Your task to perform on an android device: Do I have any events today? Image 0: 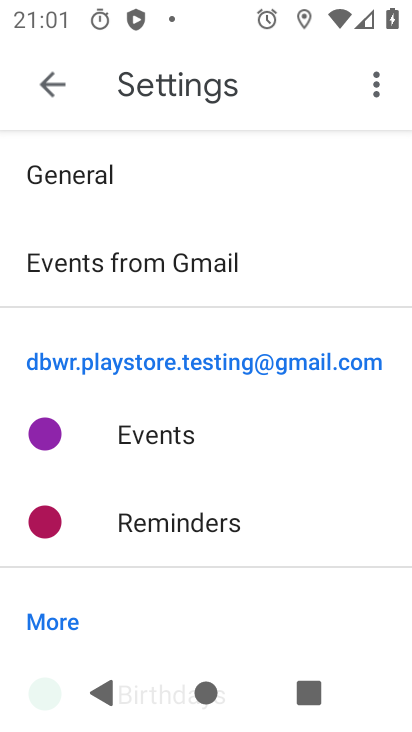
Step 0: press home button
Your task to perform on an android device: Do I have any events today? Image 1: 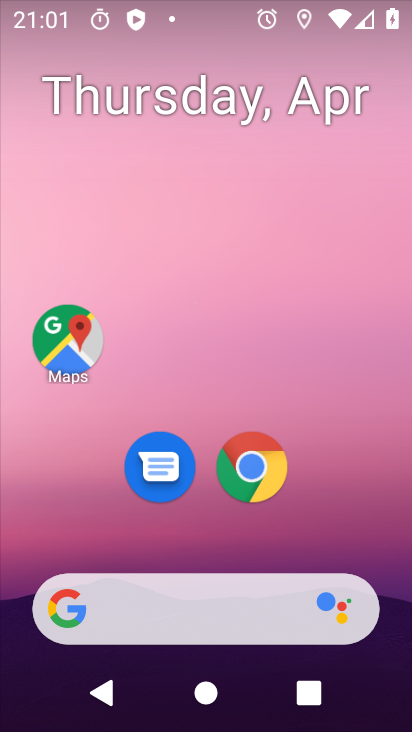
Step 1: drag from (192, 537) to (249, 17)
Your task to perform on an android device: Do I have any events today? Image 2: 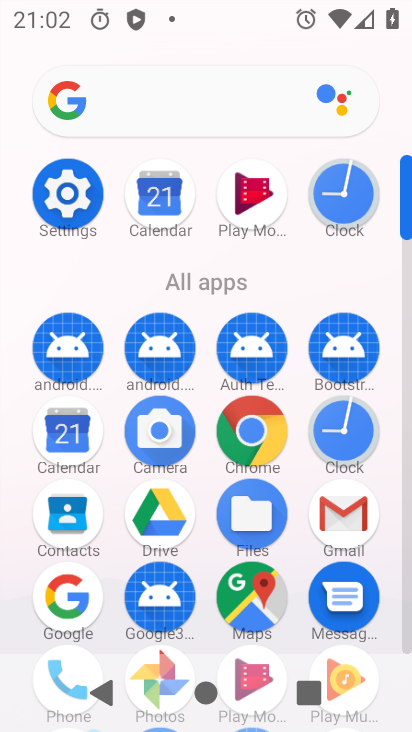
Step 2: click (64, 435)
Your task to perform on an android device: Do I have any events today? Image 3: 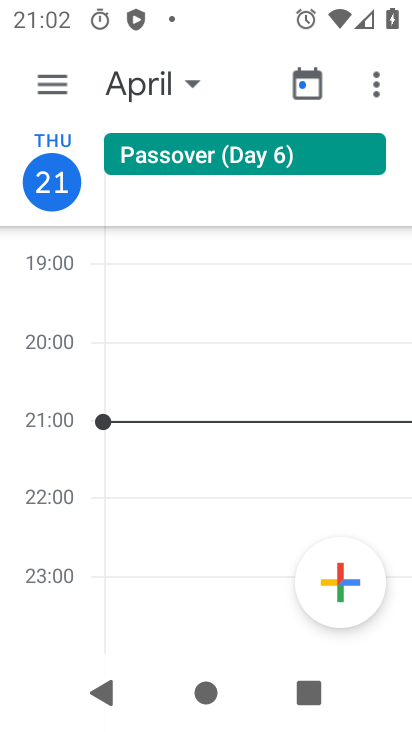
Step 3: click (53, 77)
Your task to perform on an android device: Do I have any events today? Image 4: 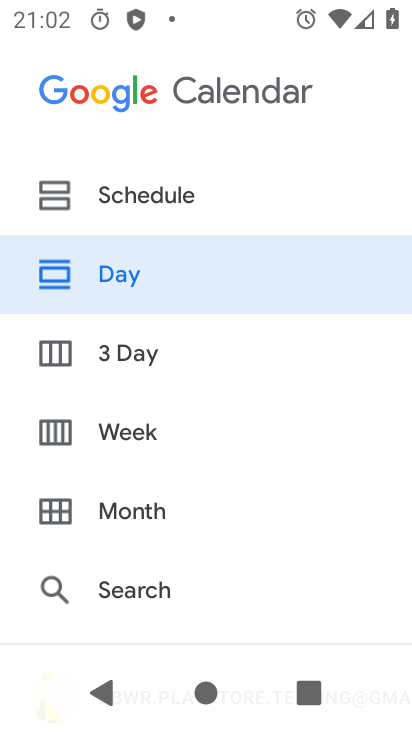
Step 4: click (105, 257)
Your task to perform on an android device: Do I have any events today? Image 5: 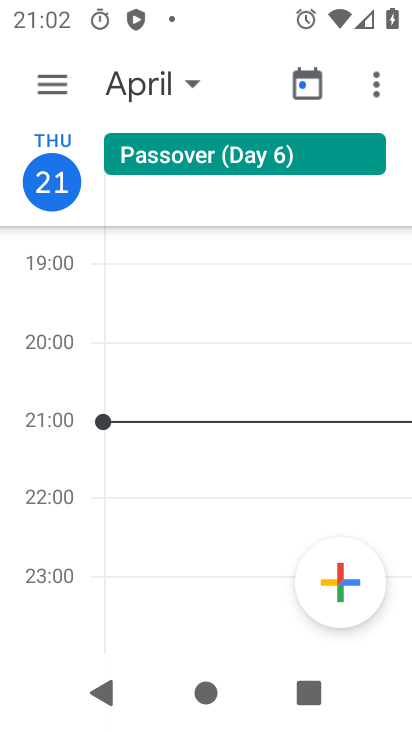
Step 5: task complete